Your task to perform on an android device: turn vacation reply on in the gmail app Image 0: 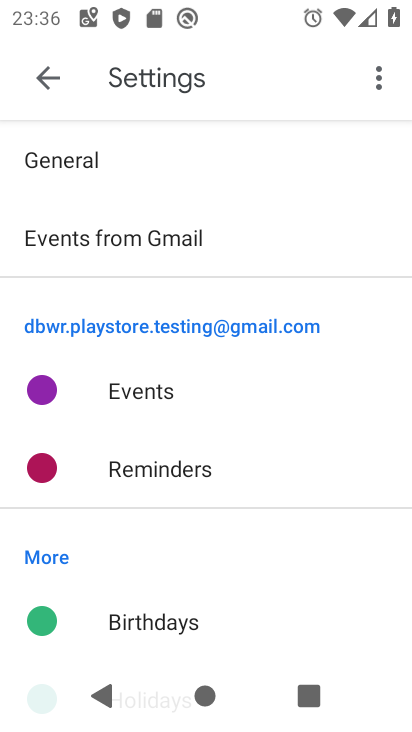
Step 0: press home button
Your task to perform on an android device: turn vacation reply on in the gmail app Image 1: 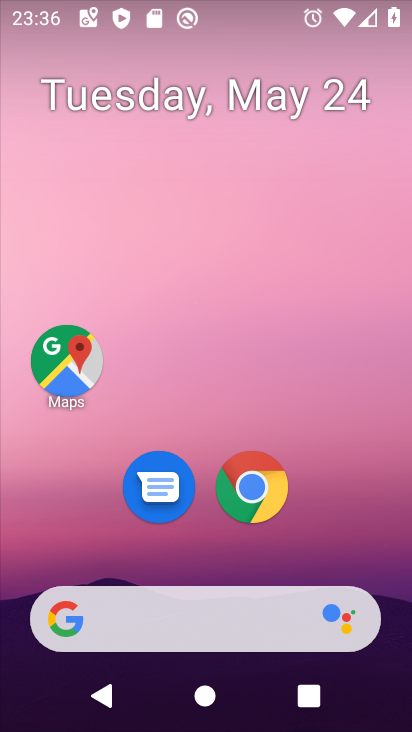
Step 1: drag from (172, 607) to (269, 53)
Your task to perform on an android device: turn vacation reply on in the gmail app Image 2: 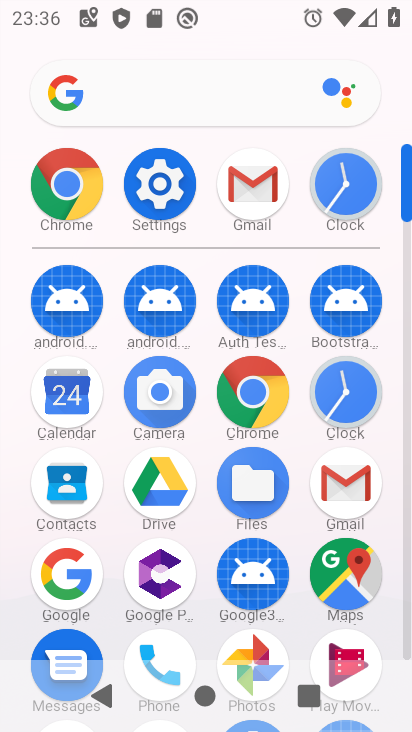
Step 2: click (244, 180)
Your task to perform on an android device: turn vacation reply on in the gmail app Image 3: 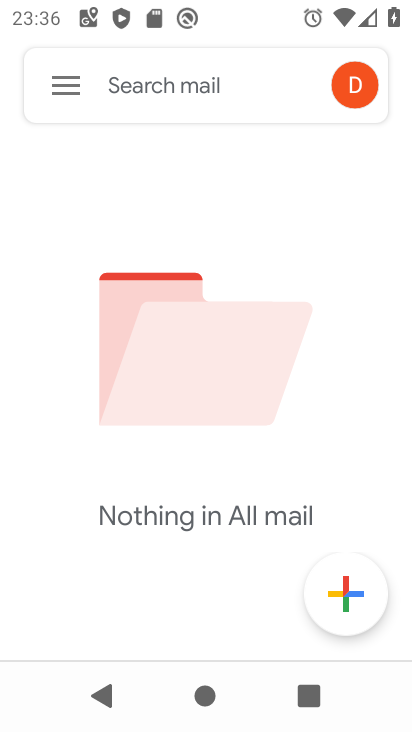
Step 3: click (62, 81)
Your task to perform on an android device: turn vacation reply on in the gmail app Image 4: 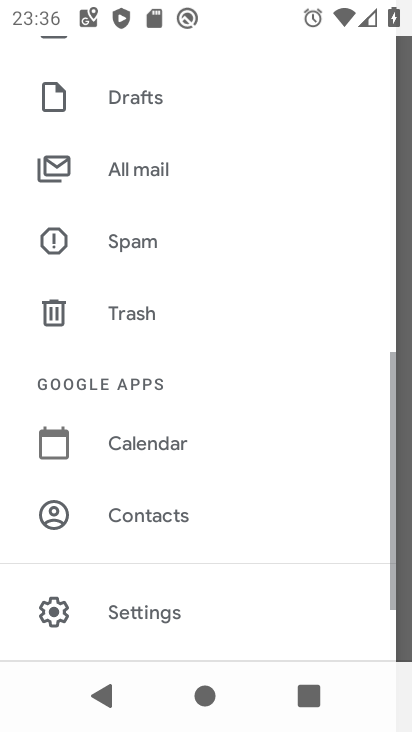
Step 4: click (139, 615)
Your task to perform on an android device: turn vacation reply on in the gmail app Image 5: 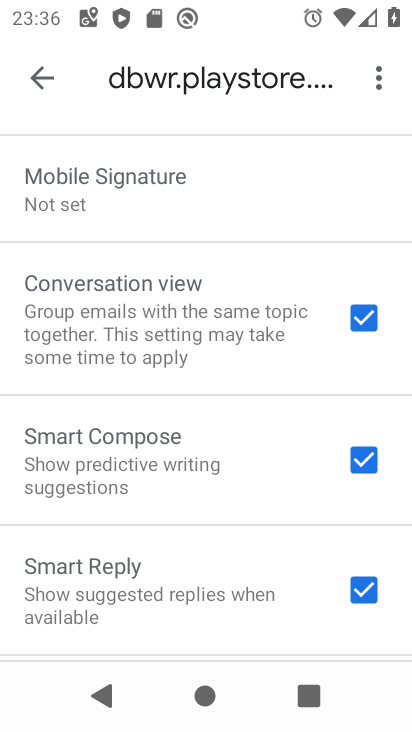
Step 5: drag from (174, 558) to (238, 67)
Your task to perform on an android device: turn vacation reply on in the gmail app Image 6: 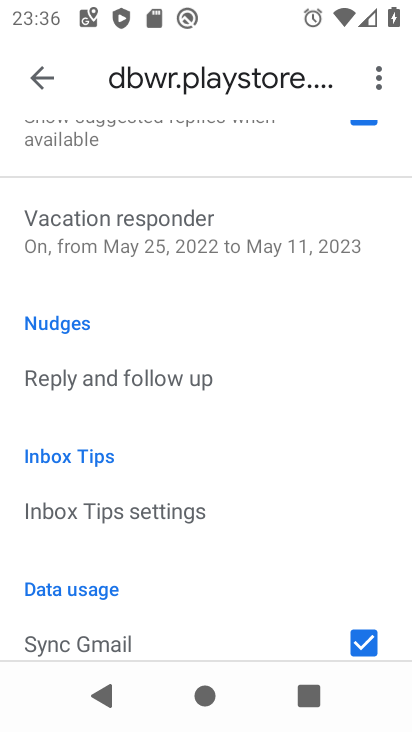
Step 6: click (154, 239)
Your task to perform on an android device: turn vacation reply on in the gmail app Image 7: 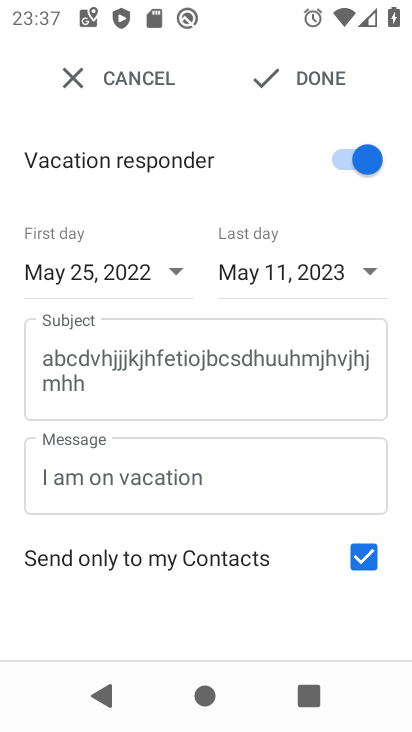
Step 7: task complete